Your task to perform on an android device: snooze an email in the gmail app Image 0: 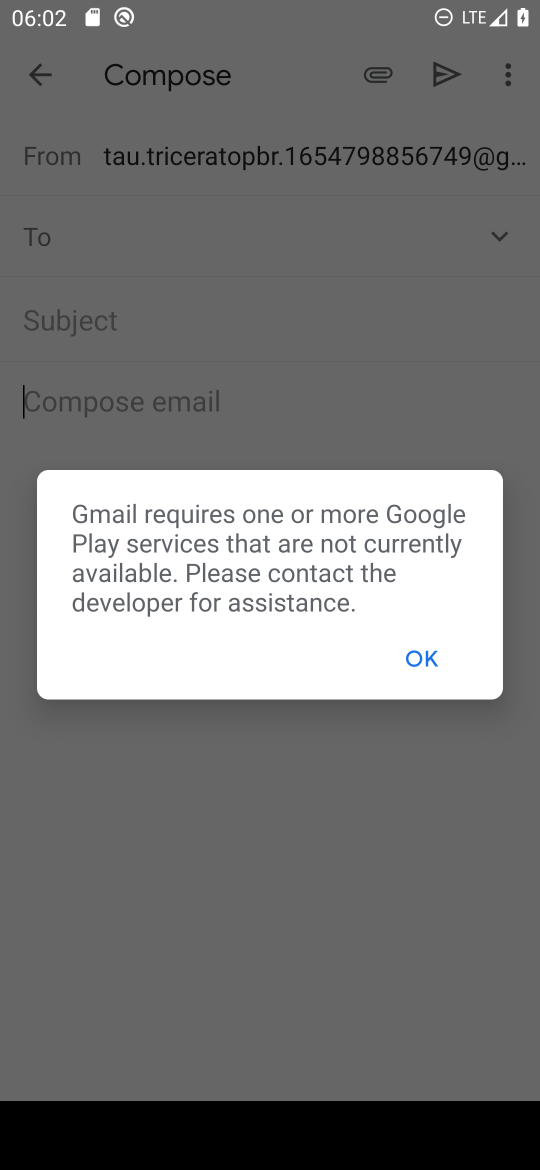
Step 0: press home button
Your task to perform on an android device: snooze an email in the gmail app Image 1: 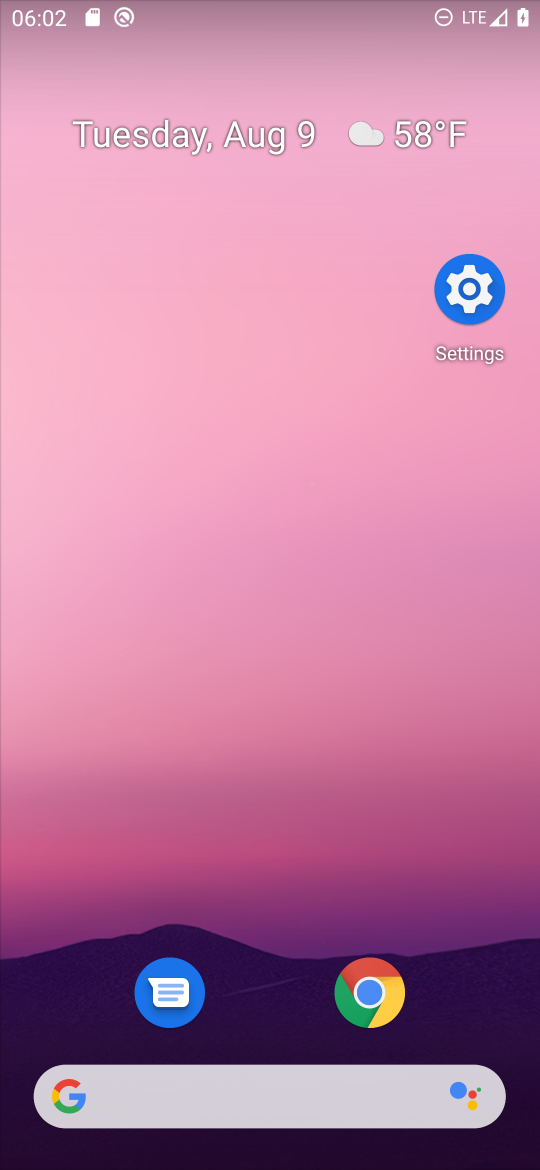
Step 1: drag from (318, 1064) to (126, 166)
Your task to perform on an android device: snooze an email in the gmail app Image 2: 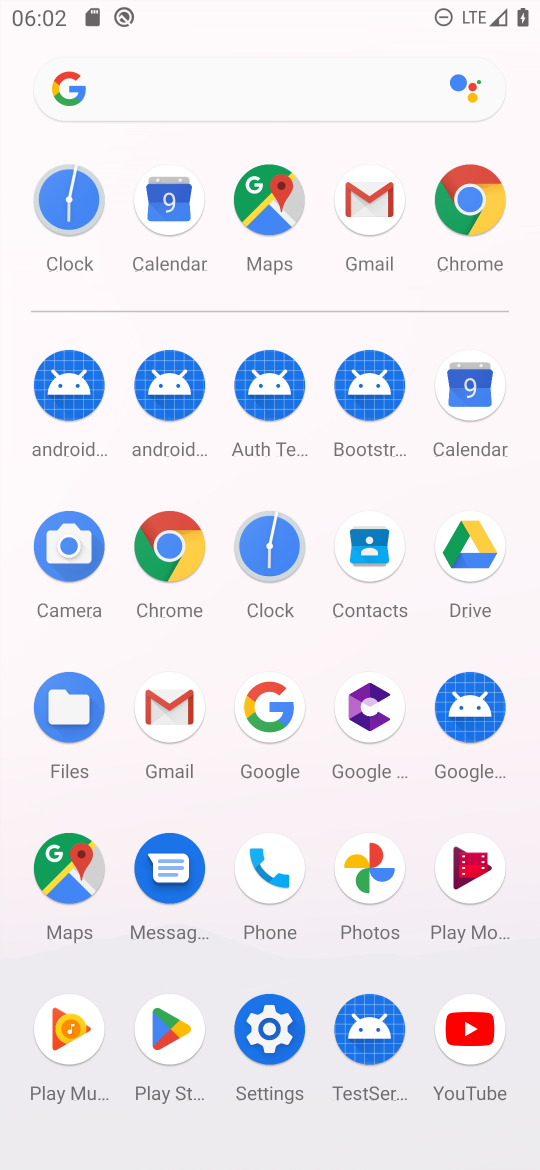
Step 2: click (140, 678)
Your task to perform on an android device: snooze an email in the gmail app Image 3: 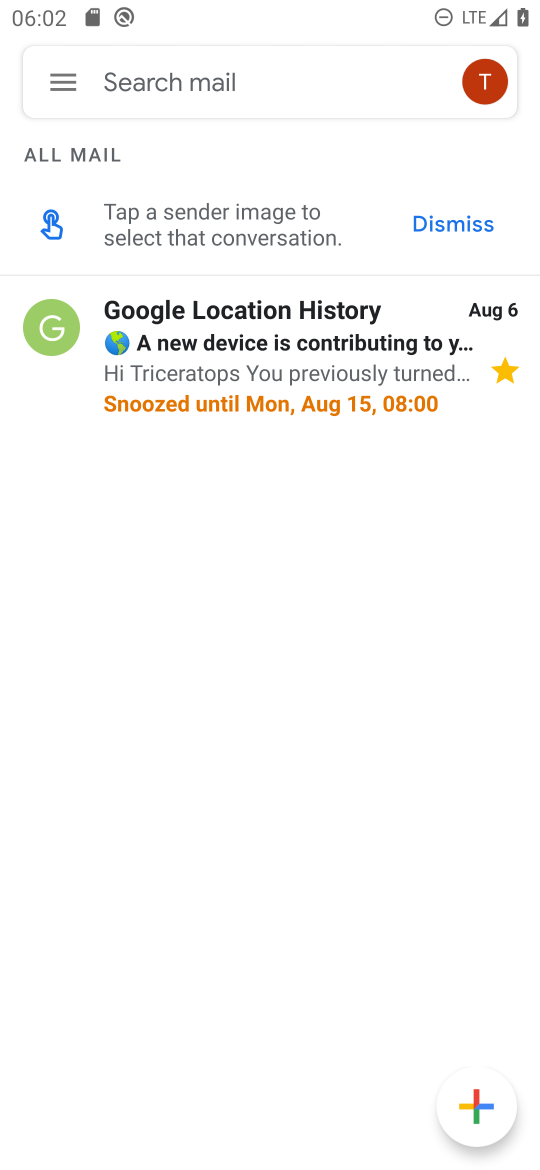
Step 3: task complete